Your task to perform on an android device: open app "Google Sheets" Image 0: 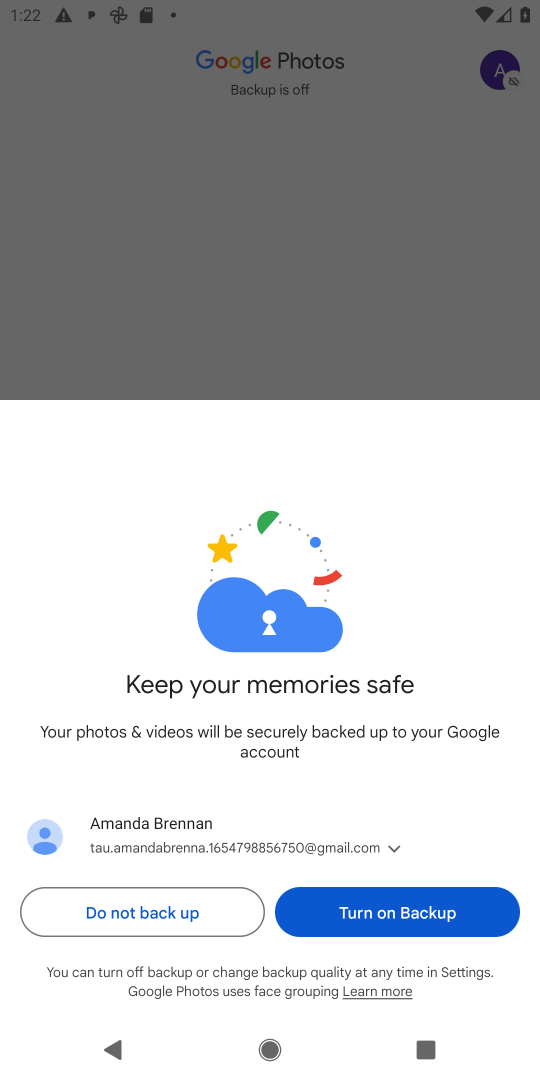
Step 0: press home button
Your task to perform on an android device: open app "Google Sheets" Image 1: 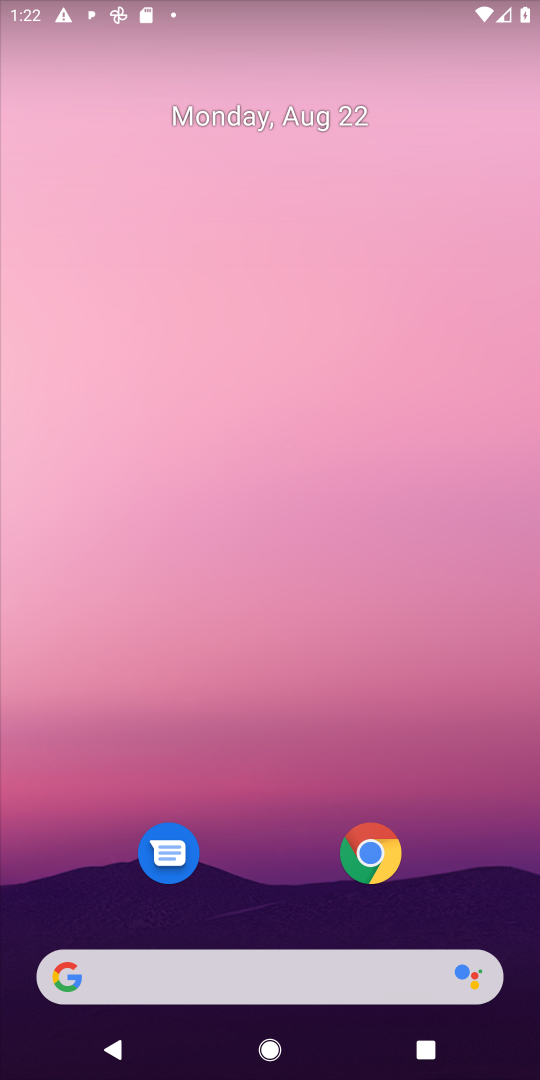
Step 1: drag from (261, 922) to (276, 285)
Your task to perform on an android device: open app "Google Sheets" Image 2: 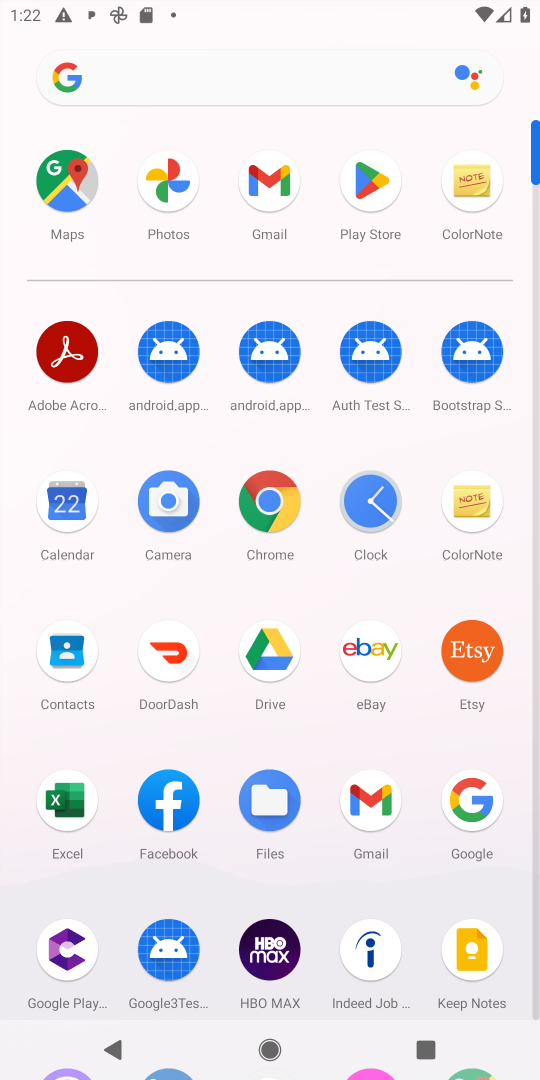
Step 2: click (360, 180)
Your task to perform on an android device: open app "Google Sheets" Image 3: 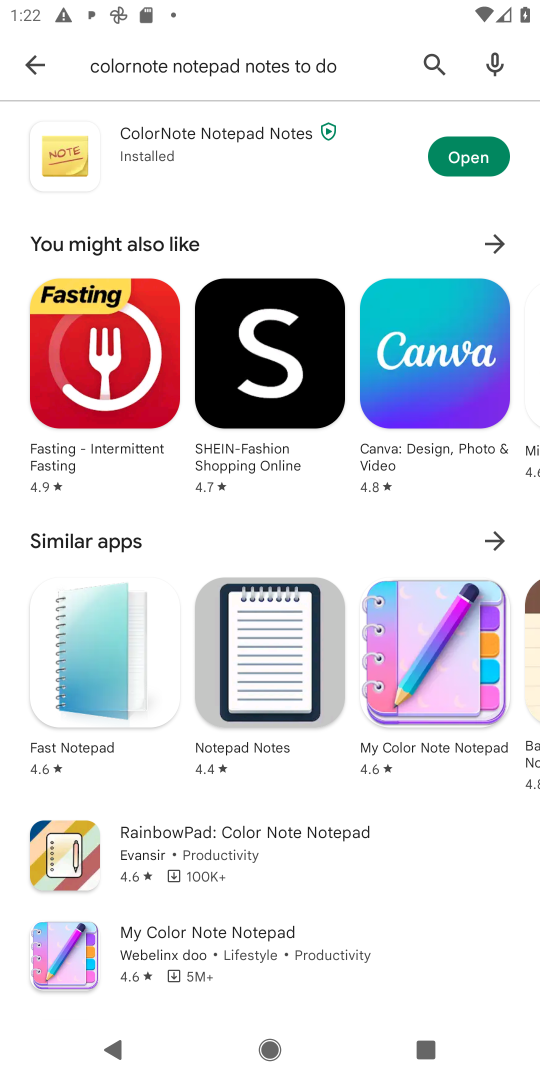
Step 3: click (35, 66)
Your task to perform on an android device: open app "Google Sheets" Image 4: 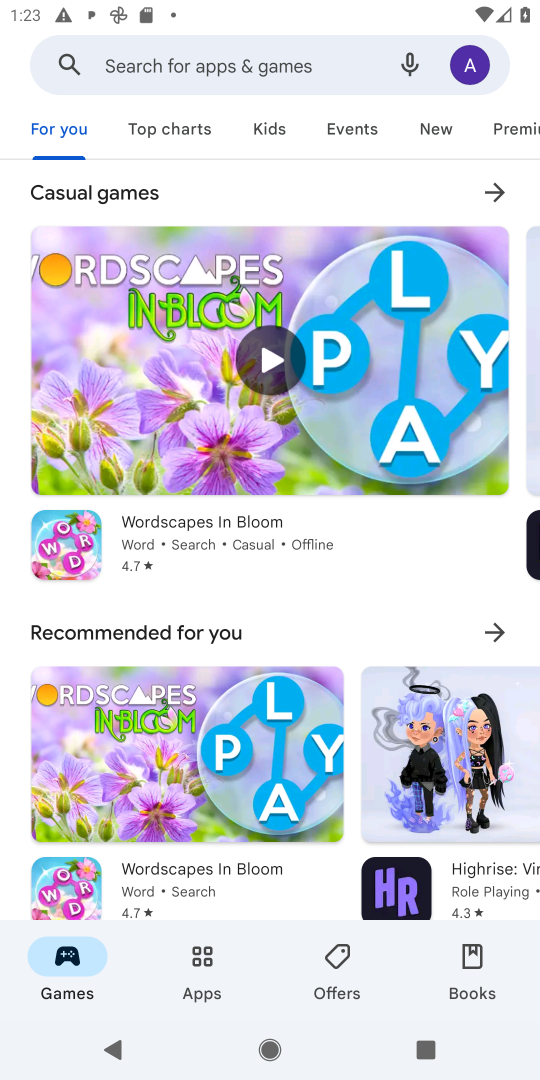
Step 4: click (243, 61)
Your task to perform on an android device: open app "Google Sheets" Image 5: 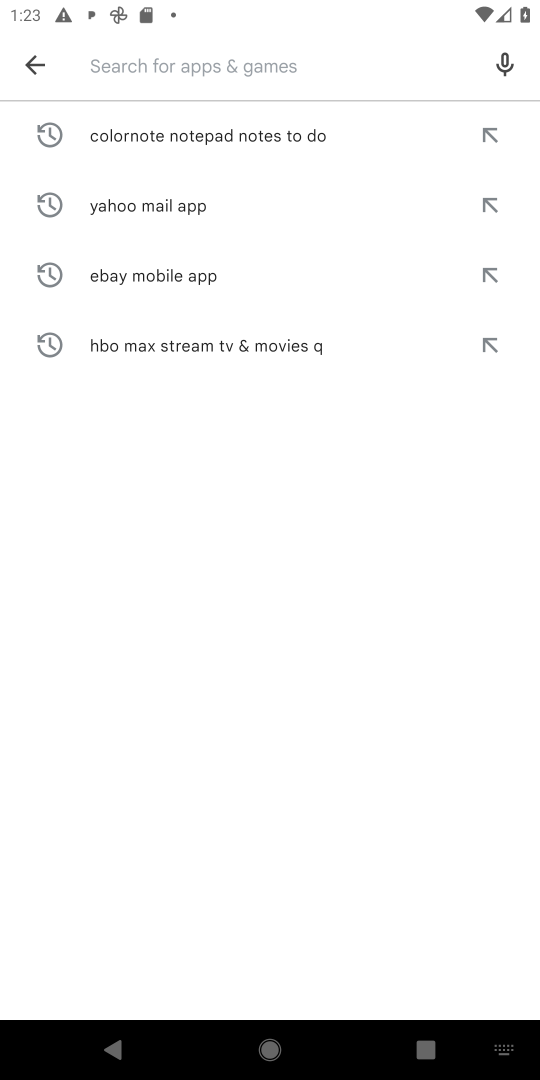
Step 5: type "Google Sheets "
Your task to perform on an android device: open app "Google Sheets" Image 6: 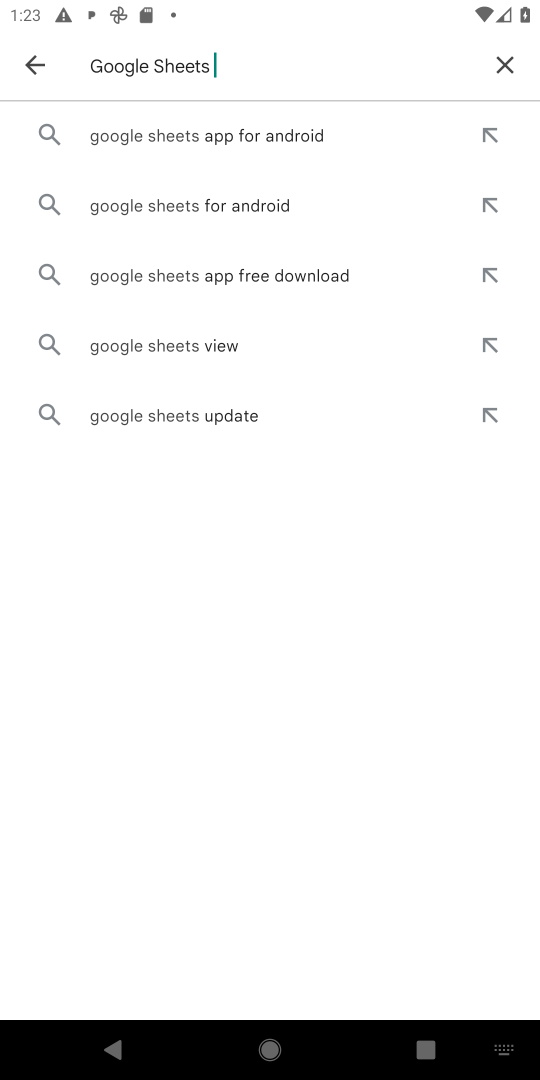
Step 6: click (145, 143)
Your task to perform on an android device: open app "Google Sheets" Image 7: 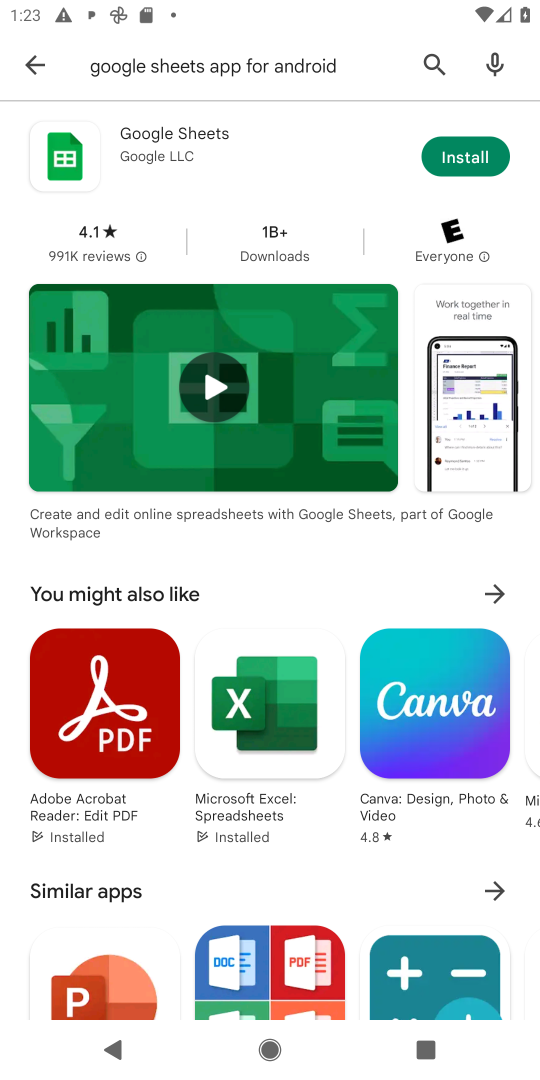
Step 7: click (477, 162)
Your task to perform on an android device: open app "Google Sheets" Image 8: 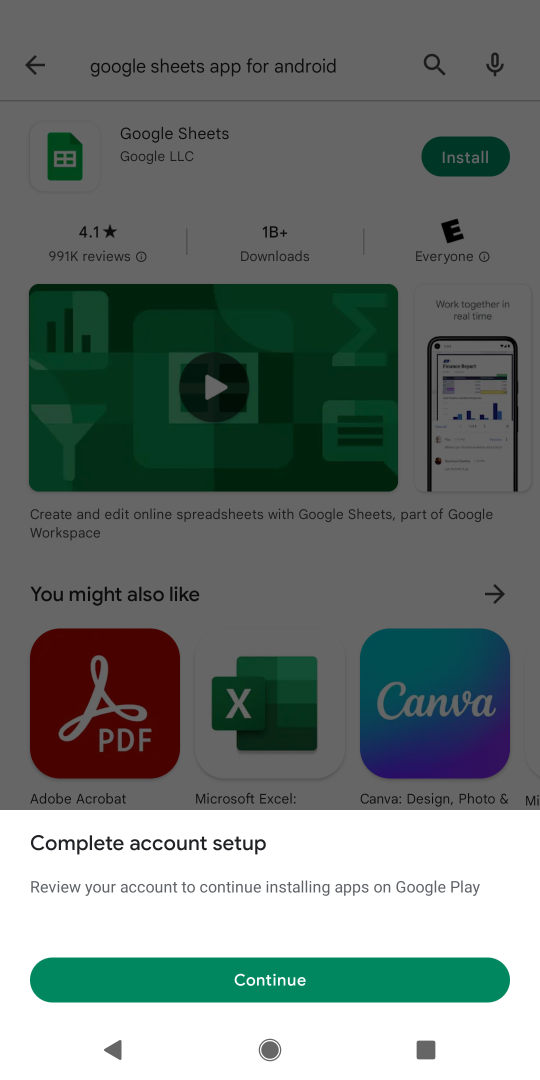
Step 8: task complete